Your task to perform on an android device: Show me recent news Image 0: 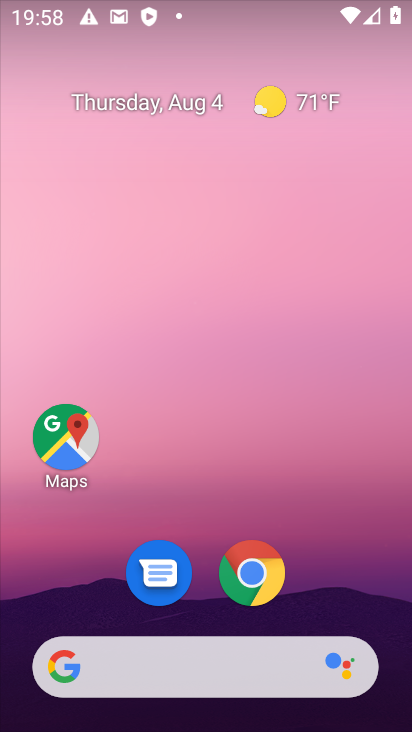
Step 0: drag from (197, 664) to (194, 10)
Your task to perform on an android device: Show me recent news Image 1: 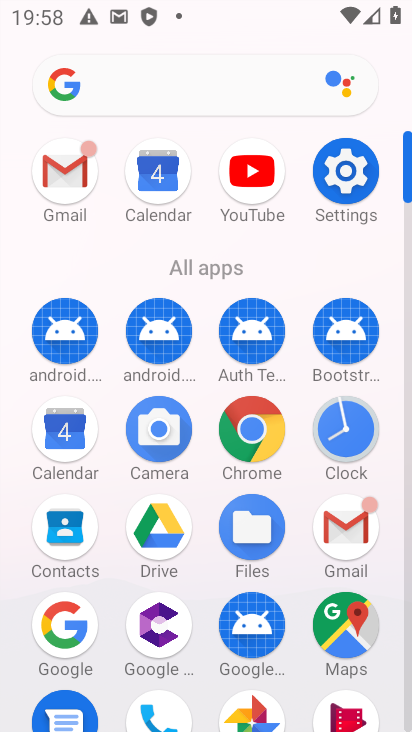
Step 1: click (241, 435)
Your task to perform on an android device: Show me recent news Image 2: 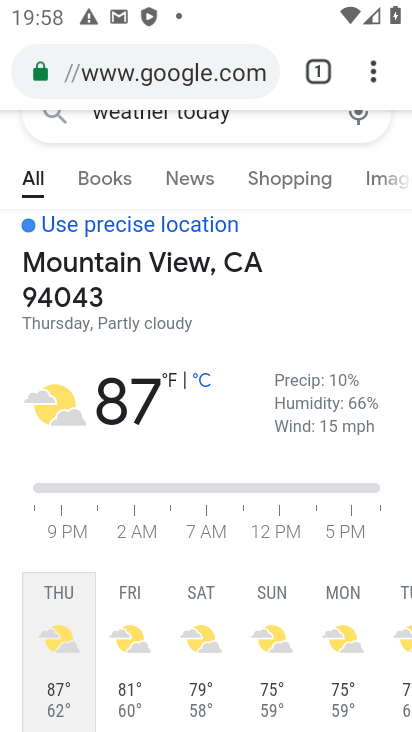
Step 2: click (146, 76)
Your task to perform on an android device: Show me recent news Image 3: 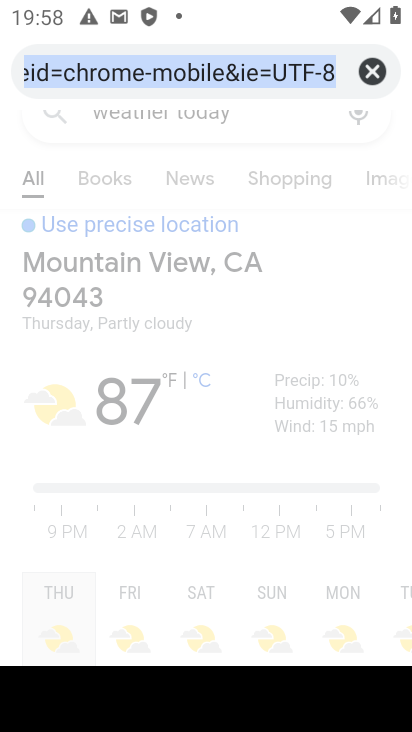
Step 3: type "recent news"
Your task to perform on an android device: Show me recent news Image 4: 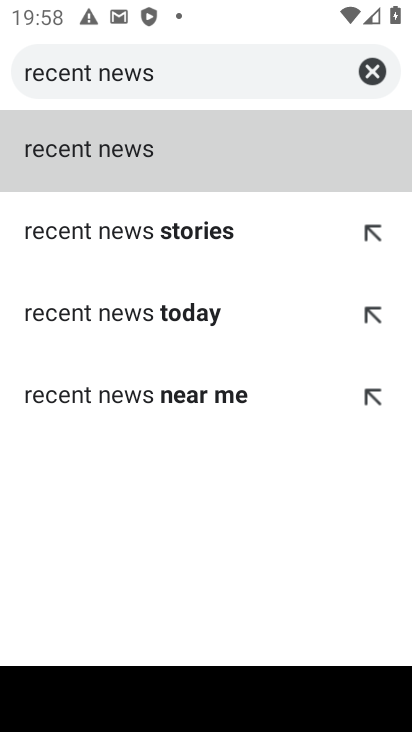
Step 4: click (286, 165)
Your task to perform on an android device: Show me recent news Image 5: 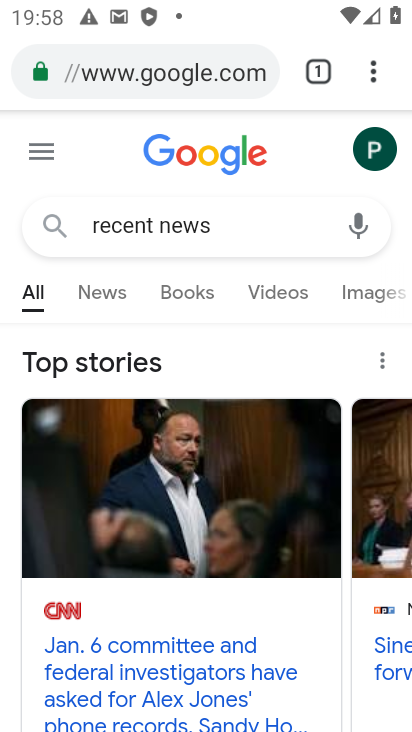
Step 5: task complete